Your task to perform on an android device: turn on bluetooth scan Image 0: 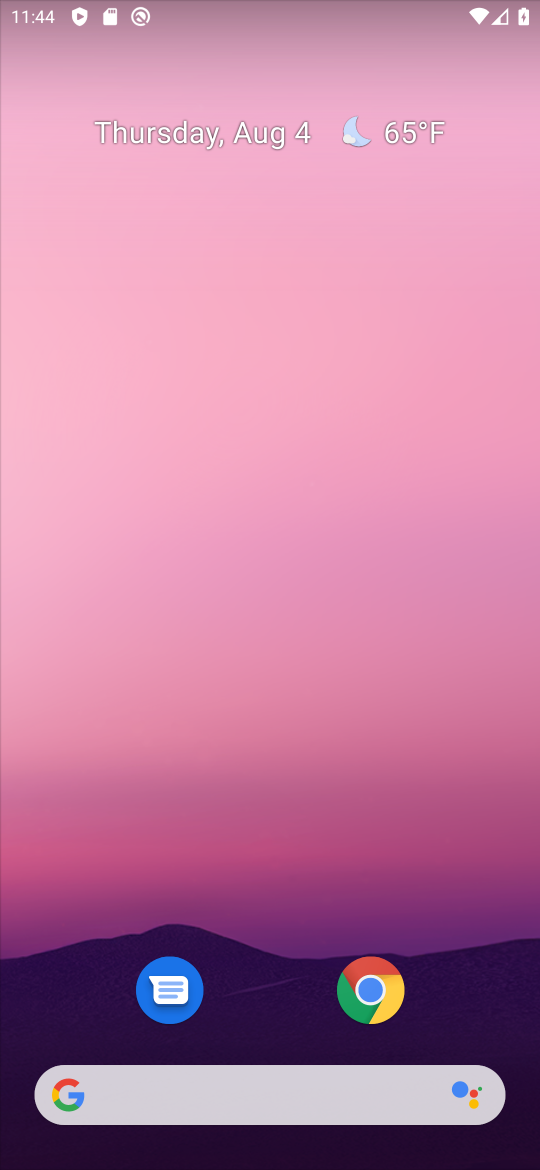
Step 0: drag from (485, 1025) to (343, 123)
Your task to perform on an android device: turn on bluetooth scan Image 1: 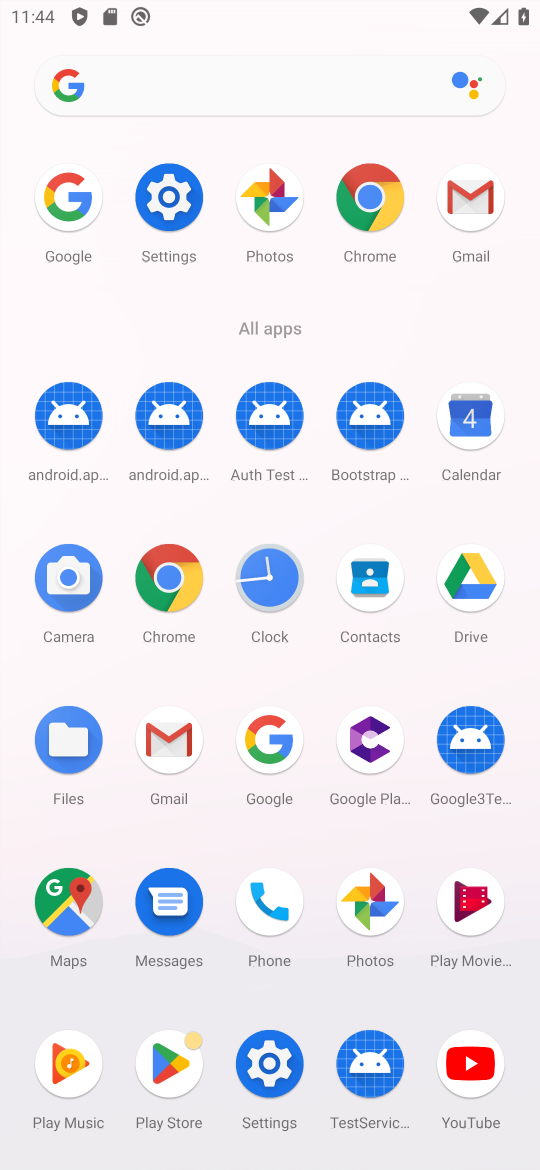
Step 1: click (168, 210)
Your task to perform on an android device: turn on bluetooth scan Image 2: 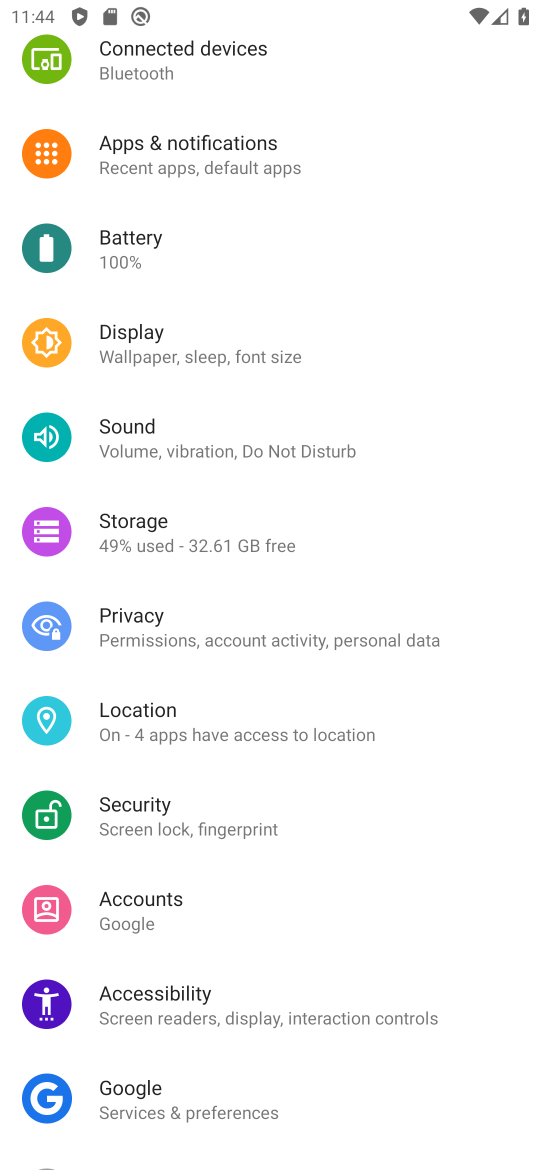
Step 2: click (223, 717)
Your task to perform on an android device: turn on bluetooth scan Image 3: 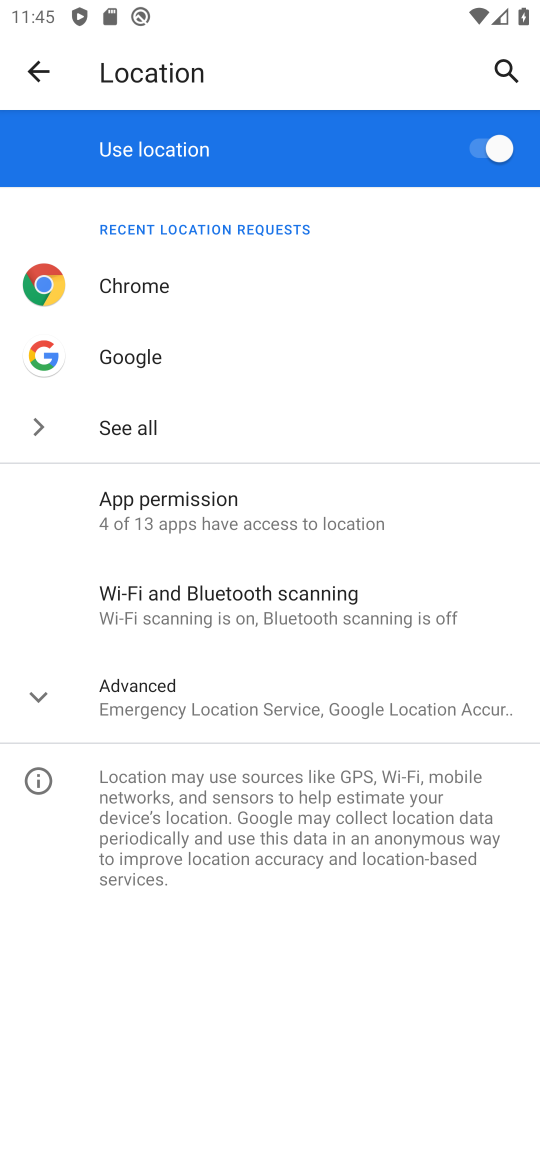
Step 3: click (333, 595)
Your task to perform on an android device: turn on bluetooth scan Image 4: 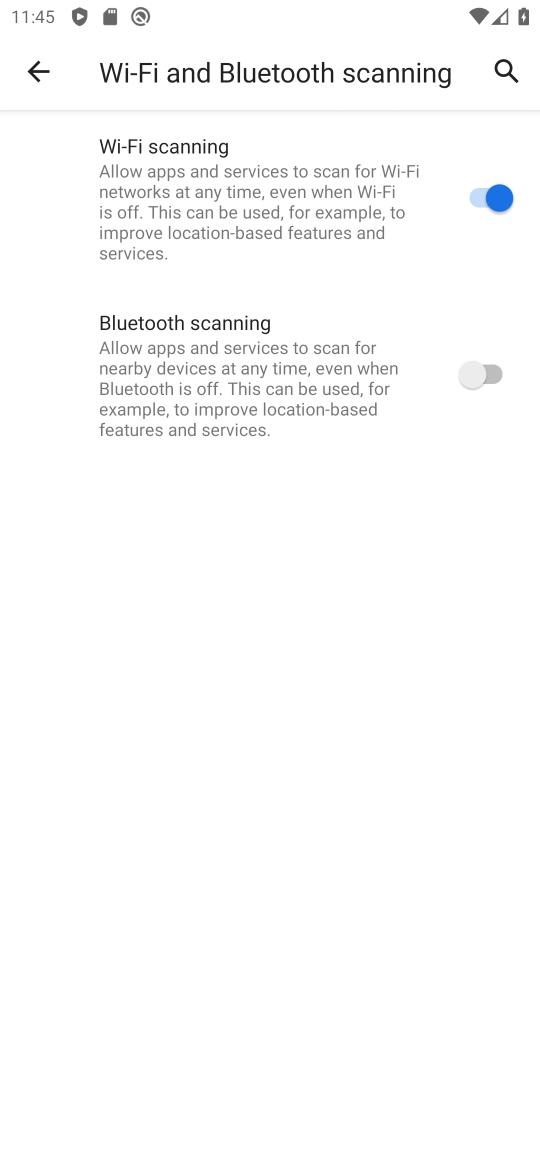
Step 4: click (333, 595)
Your task to perform on an android device: turn on bluetooth scan Image 5: 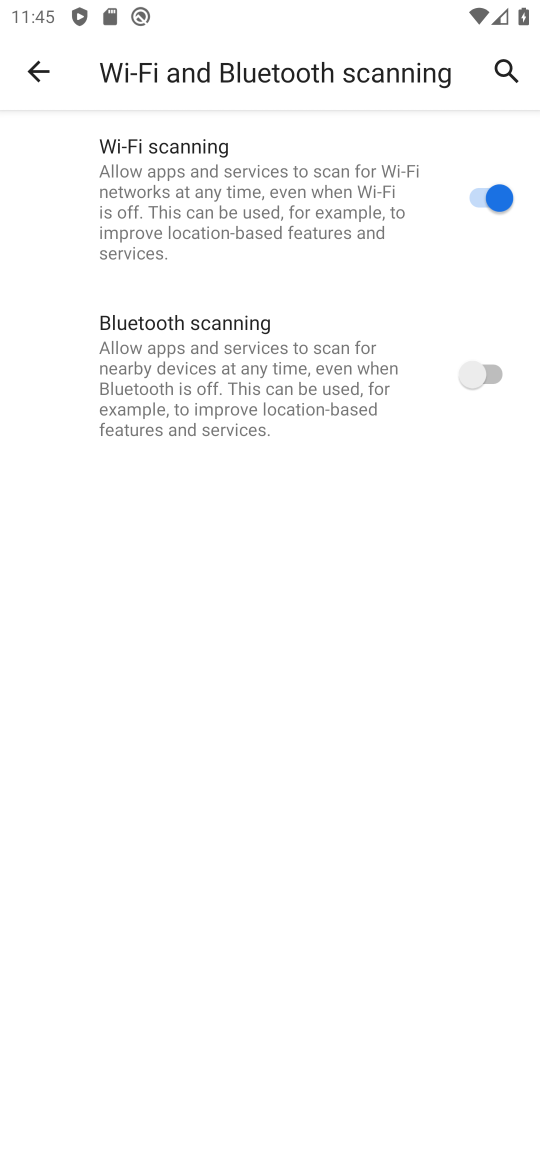
Step 5: click (496, 381)
Your task to perform on an android device: turn on bluetooth scan Image 6: 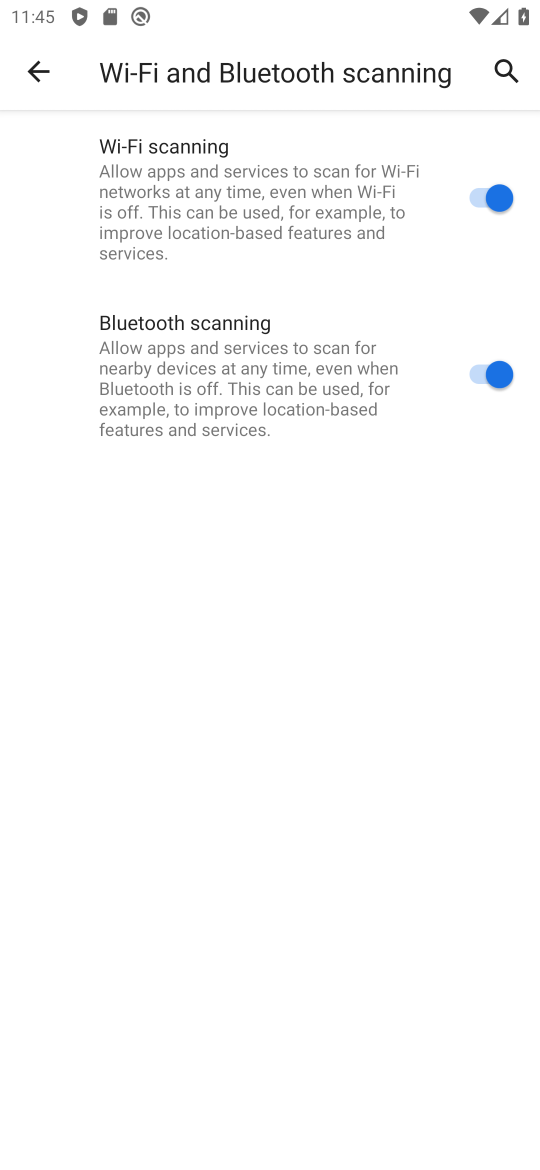
Step 6: task complete